Your task to perform on an android device: Open Youtube and go to "Your channel" Image 0: 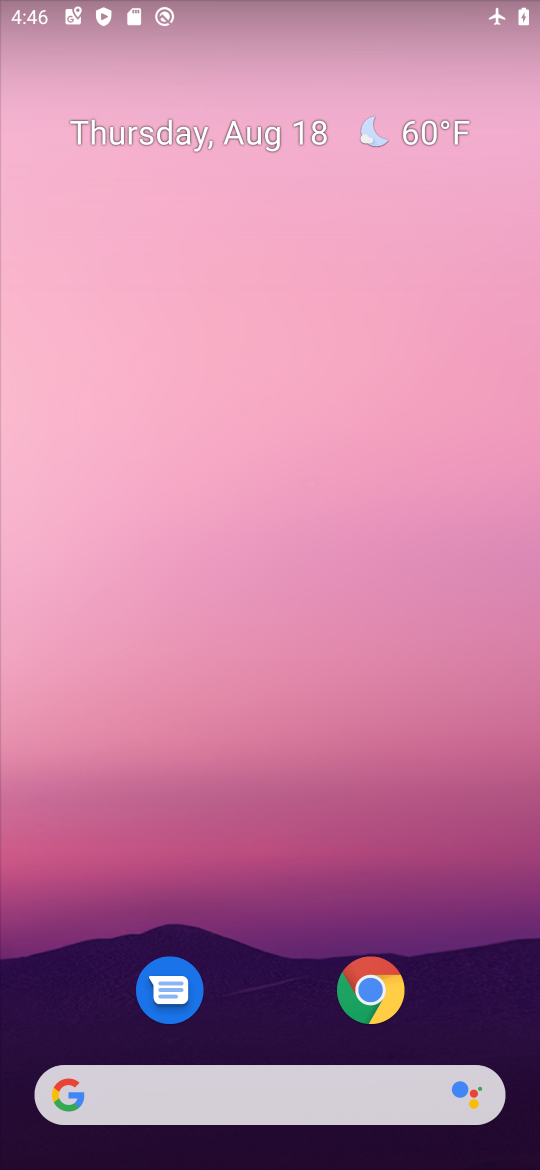
Step 0: drag from (284, 812) to (421, 168)
Your task to perform on an android device: Open Youtube and go to "Your channel" Image 1: 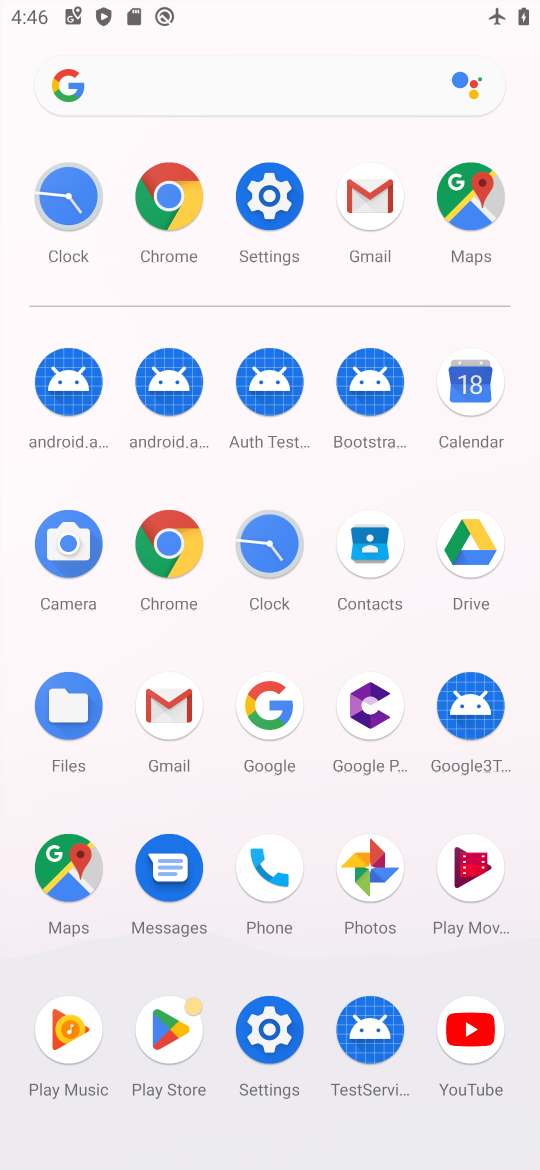
Step 1: click (461, 1027)
Your task to perform on an android device: Open Youtube and go to "Your channel" Image 2: 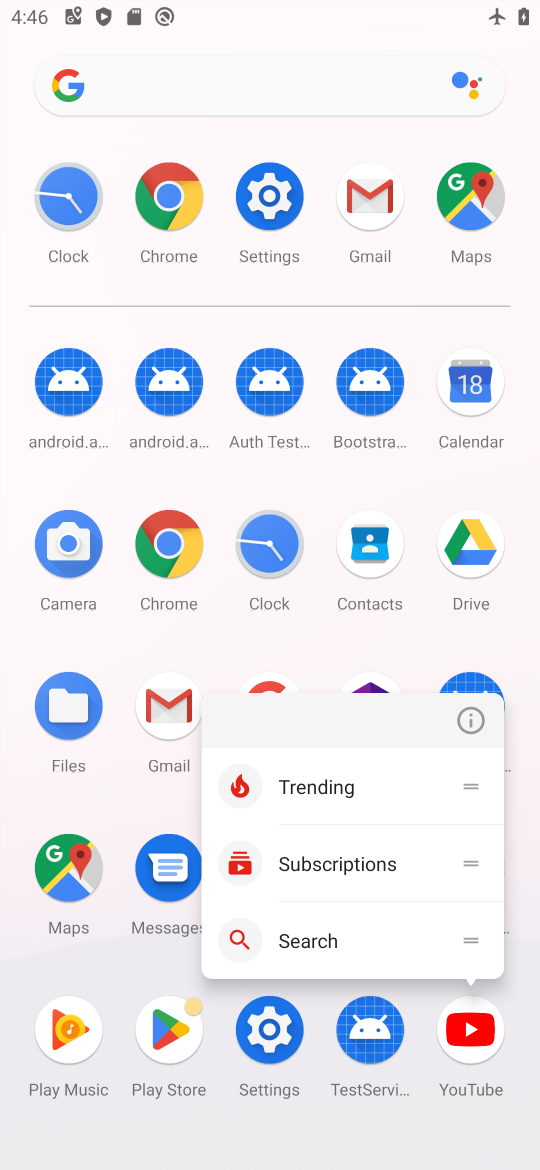
Step 2: click (461, 1027)
Your task to perform on an android device: Open Youtube and go to "Your channel" Image 3: 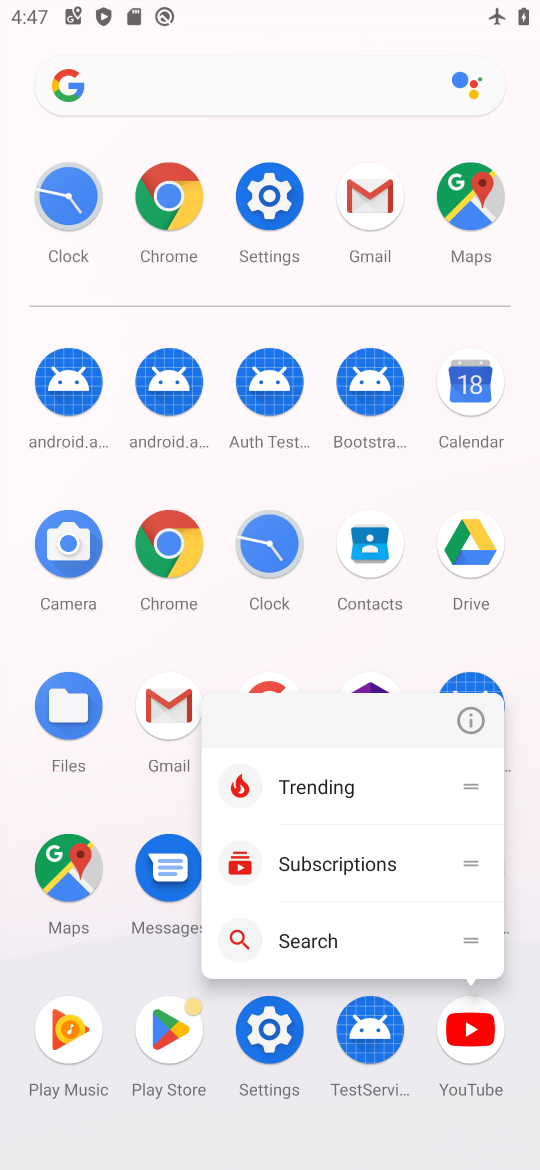
Step 3: click (461, 1027)
Your task to perform on an android device: Open Youtube and go to "Your channel" Image 4: 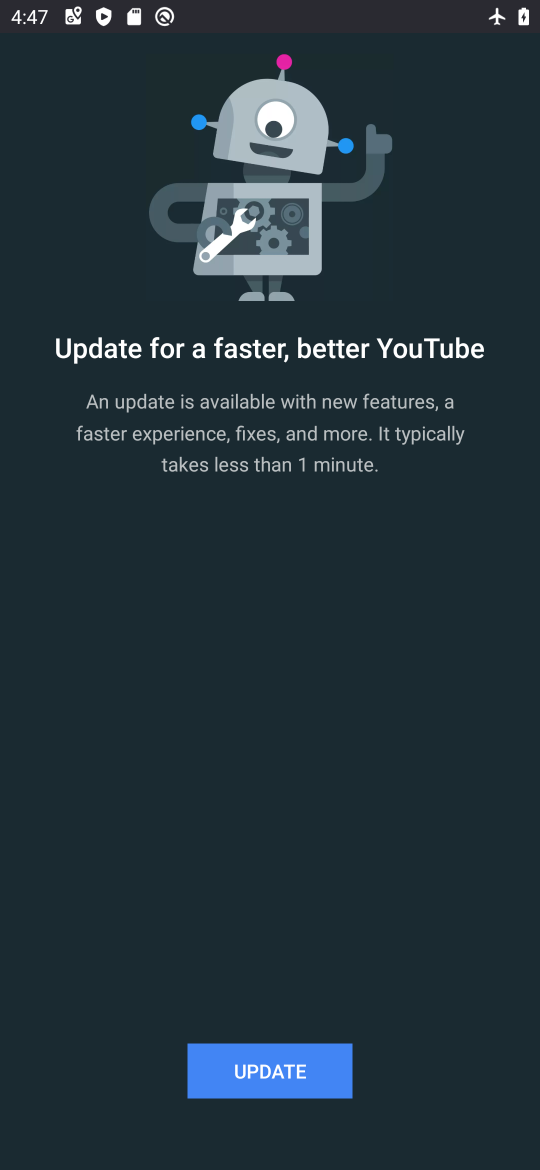
Step 4: click (258, 1091)
Your task to perform on an android device: Open Youtube and go to "Your channel" Image 5: 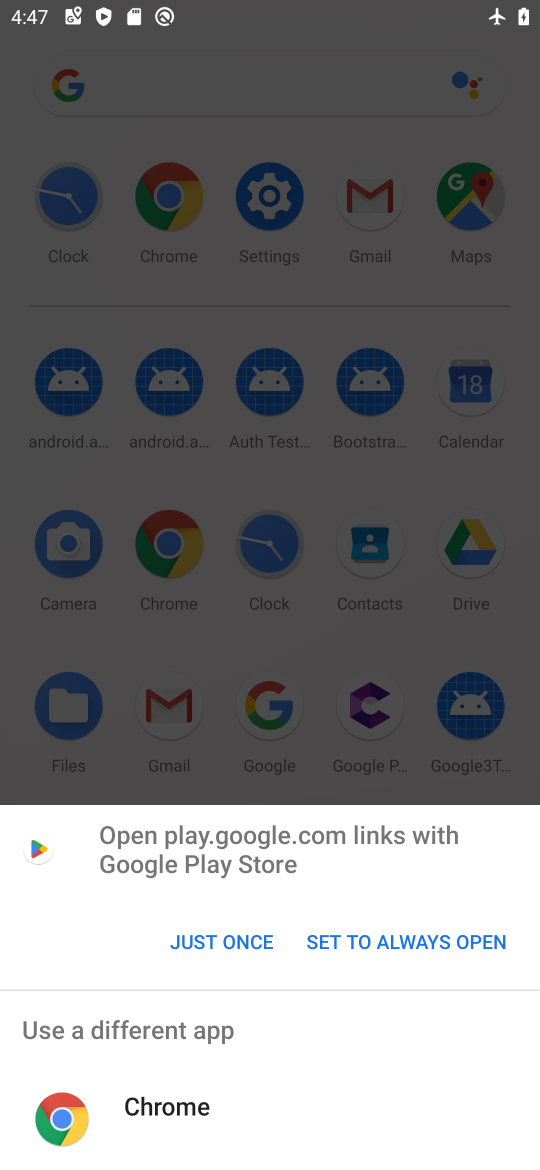
Step 5: click (186, 949)
Your task to perform on an android device: Open Youtube and go to "Your channel" Image 6: 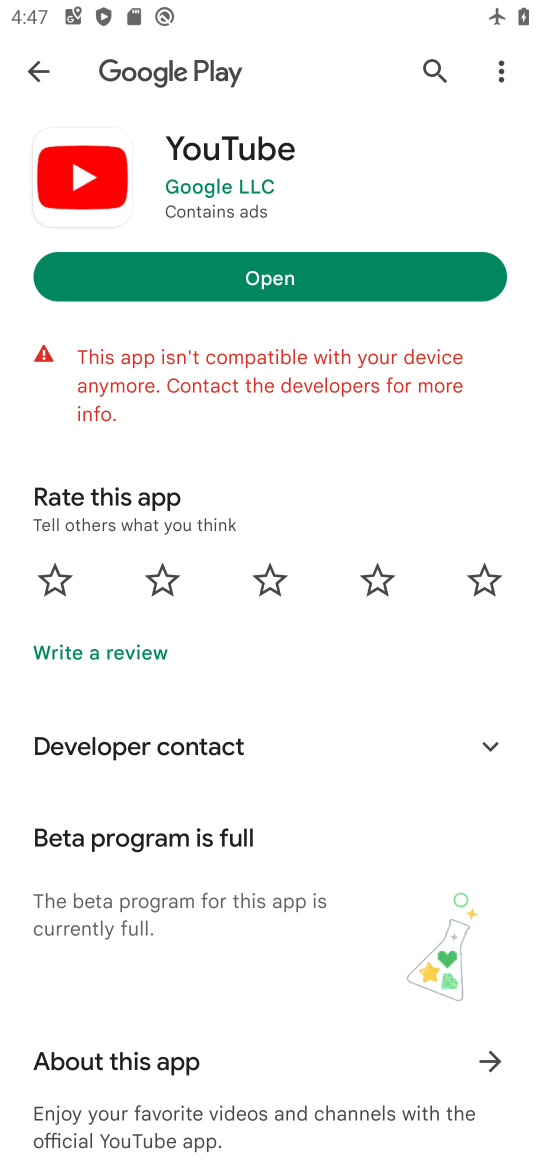
Step 6: task complete